Your task to perform on an android device: all mails in gmail Image 0: 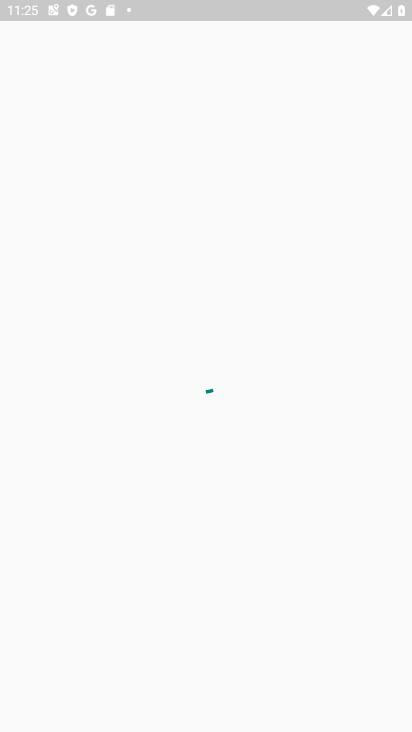
Step 0: press home button
Your task to perform on an android device: all mails in gmail Image 1: 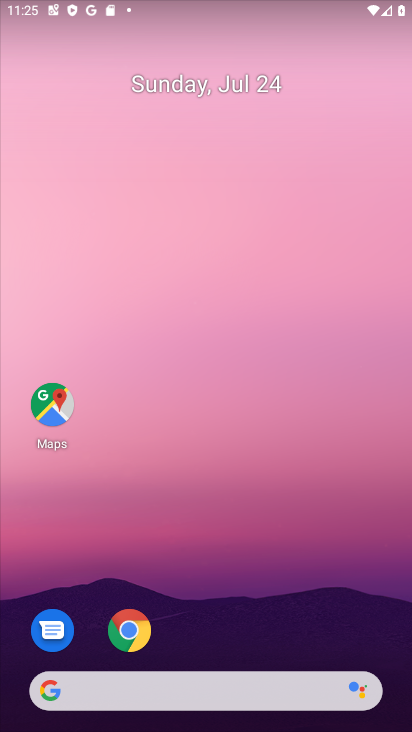
Step 1: drag from (230, 649) to (325, 249)
Your task to perform on an android device: all mails in gmail Image 2: 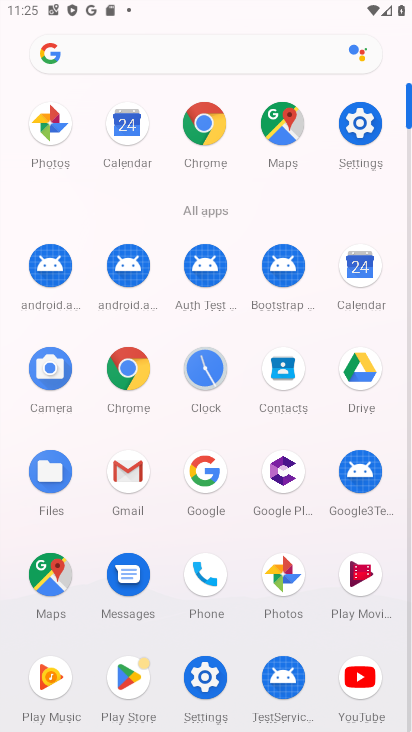
Step 2: click (137, 458)
Your task to perform on an android device: all mails in gmail Image 3: 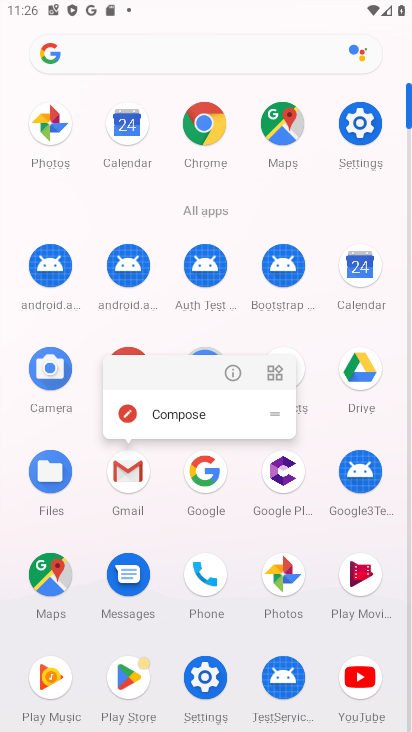
Step 3: click (127, 492)
Your task to perform on an android device: all mails in gmail Image 4: 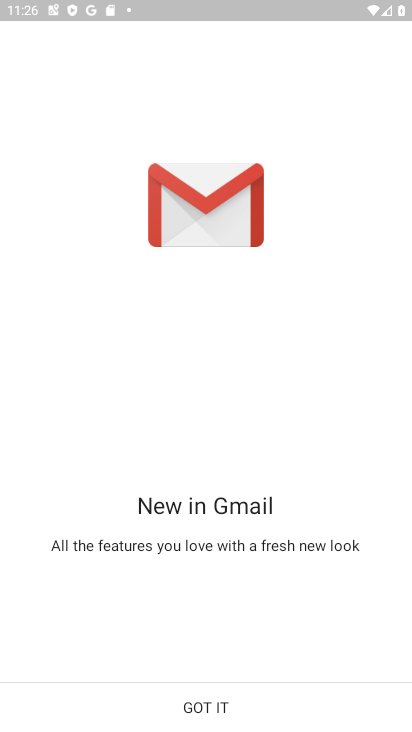
Step 4: click (207, 691)
Your task to perform on an android device: all mails in gmail Image 5: 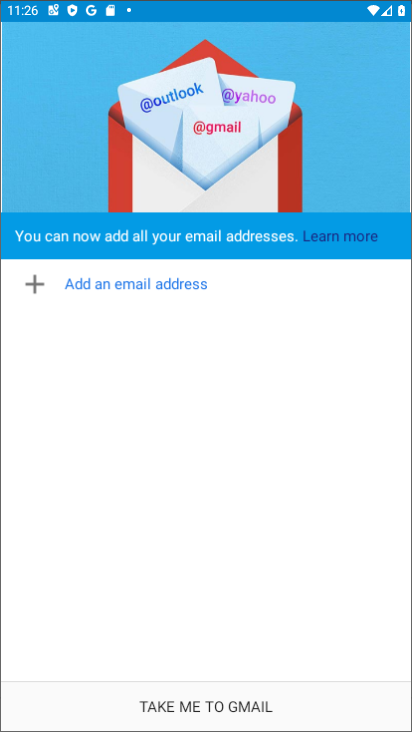
Step 5: click (207, 691)
Your task to perform on an android device: all mails in gmail Image 6: 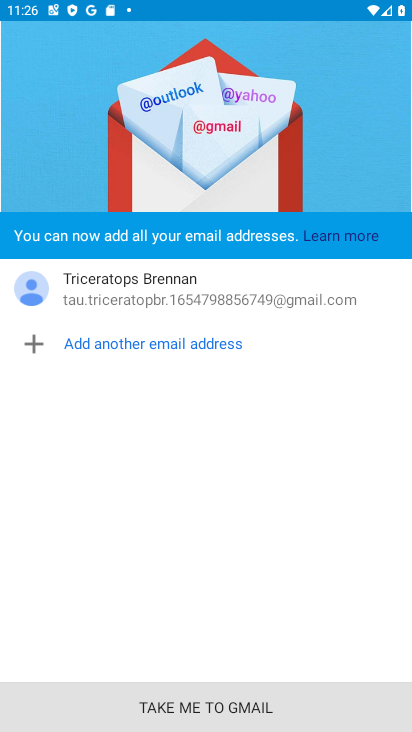
Step 6: click (207, 691)
Your task to perform on an android device: all mails in gmail Image 7: 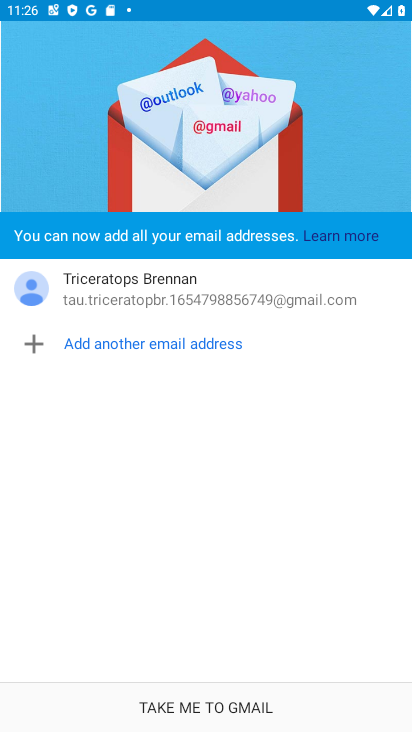
Step 7: click (207, 691)
Your task to perform on an android device: all mails in gmail Image 8: 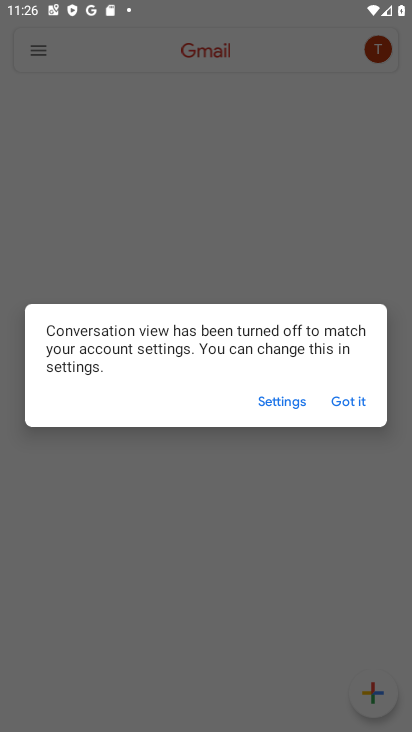
Step 8: click (371, 400)
Your task to perform on an android device: all mails in gmail Image 9: 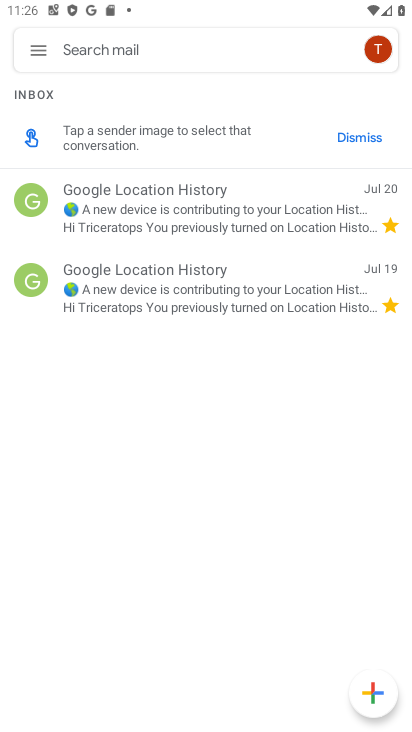
Step 9: click (26, 61)
Your task to perform on an android device: all mails in gmail Image 10: 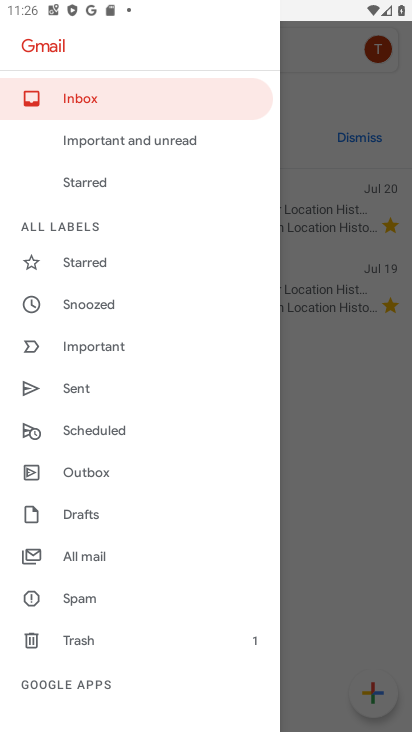
Step 10: click (38, 569)
Your task to perform on an android device: all mails in gmail Image 11: 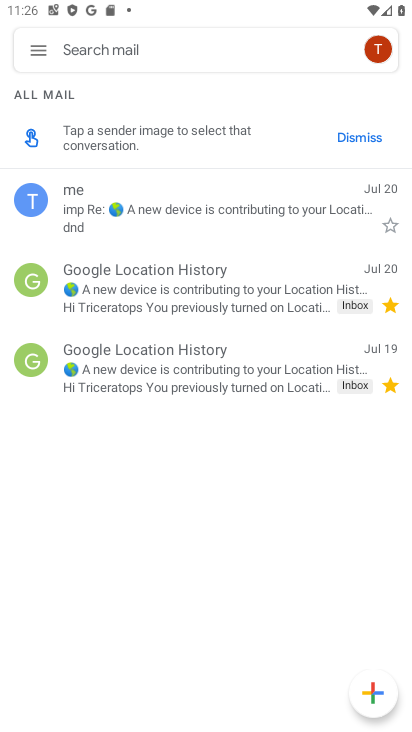
Step 11: task complete